Your task to perform on an android device: Show me the alarms in the clock app Image 0: 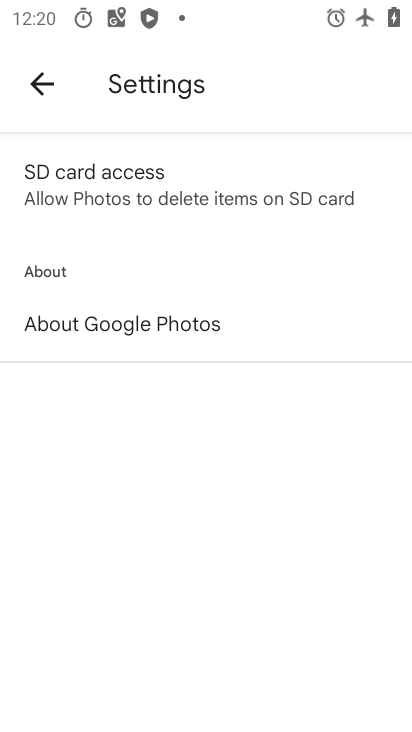
Step 0: press home button
Your task to perform on an android device: Show me the alarms in the clock app Image 1: 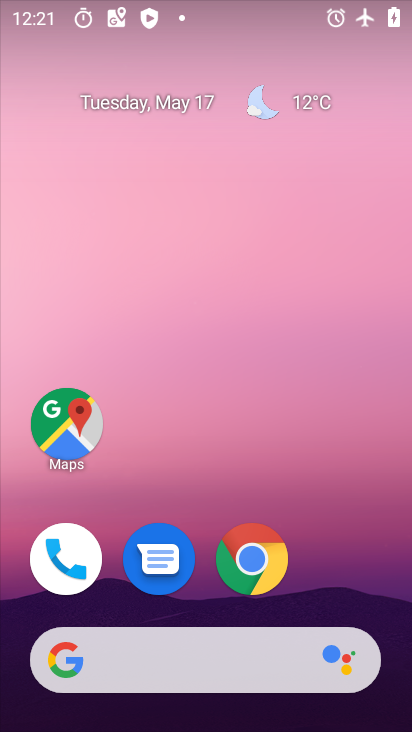
Step 1: drag from (318, 558) to (310, 62)
Your task to perform on an android device: Show me the alarms in the clock app Image 2: 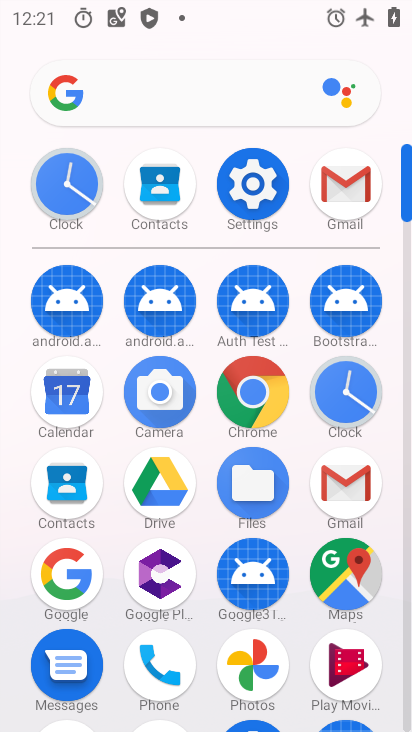
Step 2: click (325, 394)
Your task to perform on an android device: Show me the alarms in the clock app Image 3: 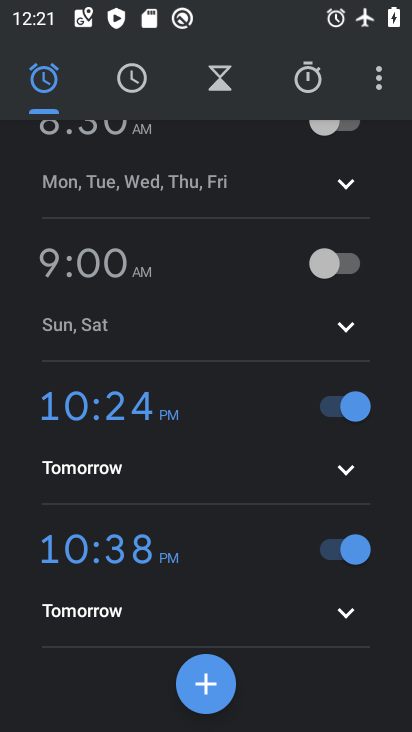
Step 3: task complete